Your task to perform on an android device: Show me popular games on the Play Store Image 0: 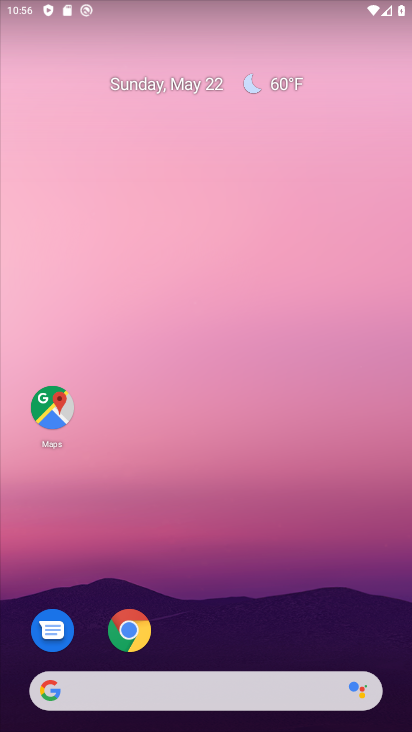
Step 0: drag from (279, 611) to (270, 82)
Your task to perform on an android device: Show me popular games on the Play Store Image 1: 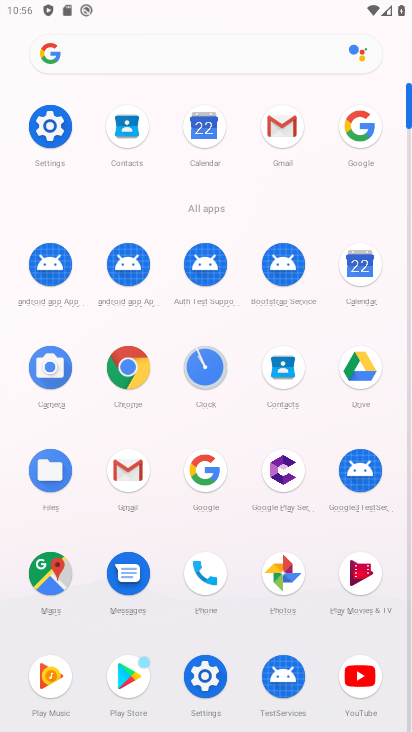
Step 1: click (129, 679)
Your task to perform on an android device: Show me popular games on the Play Store Image 2: 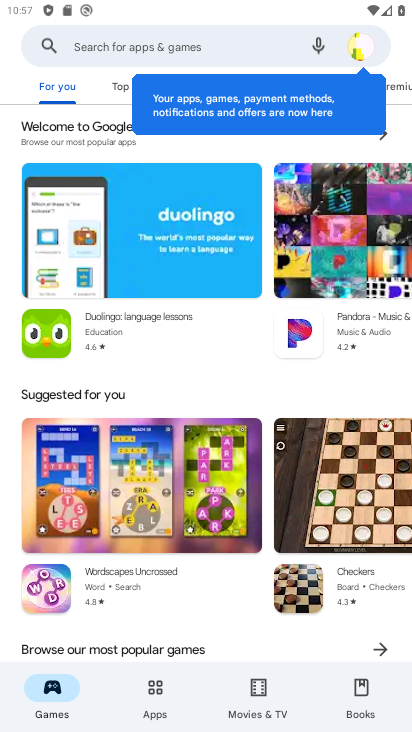
Step 2: click (127, 38)
Your task to perform on an android device: Show me popular games on the Play Store Image 3: 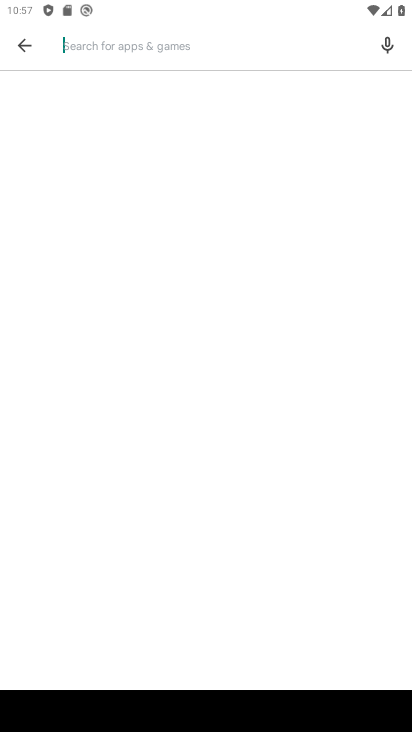
Step 3: type "popukar games"
Your task to perform on an android device: Show me popular games on the Play Store Image 4: 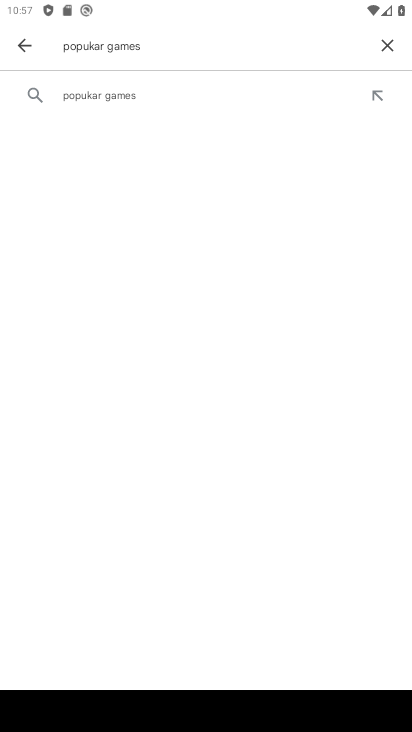
Step 4: click (89, 94)
Your task to perform on an android device: Show me popular games on the Play Store Image 5: 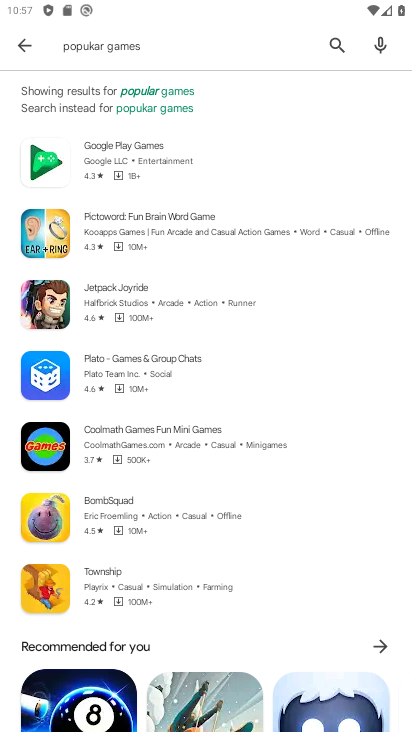
Step 5: task complete